Your task to perform on an android device: turn off picture-in-picture Image 0: 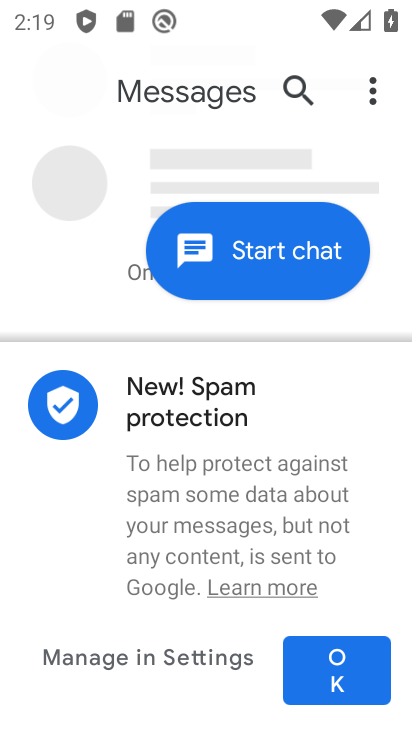
Step 0: press home button
Your task to perform on an android device: turn off picture-in-picture Image 1: 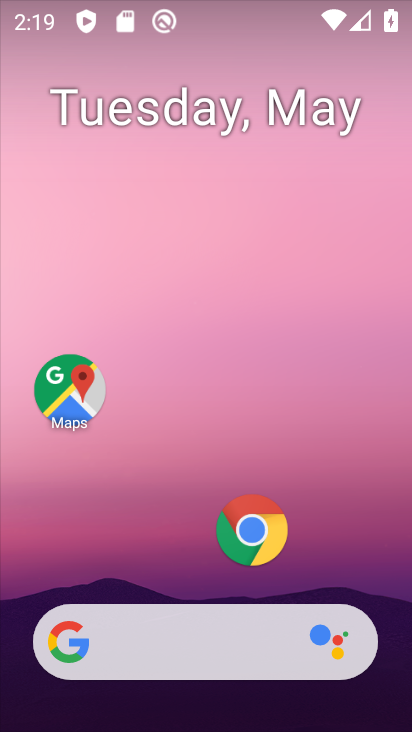
Step 1: drag from (203, 574) to (233, 46)
Your task to perform on an android device: turn off picture-in-picture Image 2: 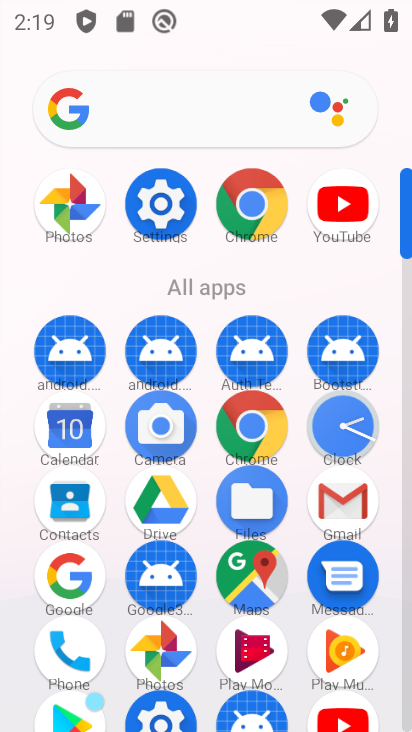
Step 2: click (257, 428)
Your task to perform on an android device: turn off picture-in-picture Image 3: 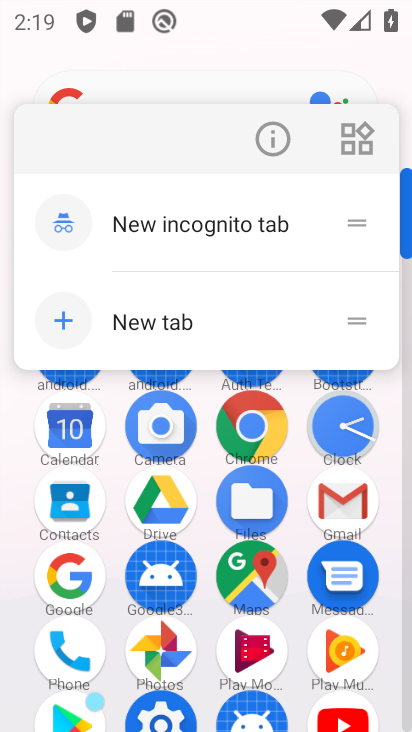
Step 3: click (273, 141)
Your task to perform on an android device: turn off picture-in-picture Image 4: 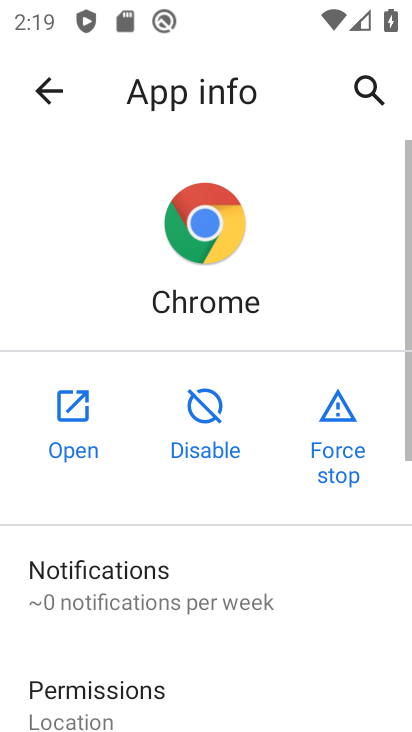
Step 4: drag from (152, 608) to (214, 123)
Your task to perform on an android device: turn off picture-in-picture Image 5: 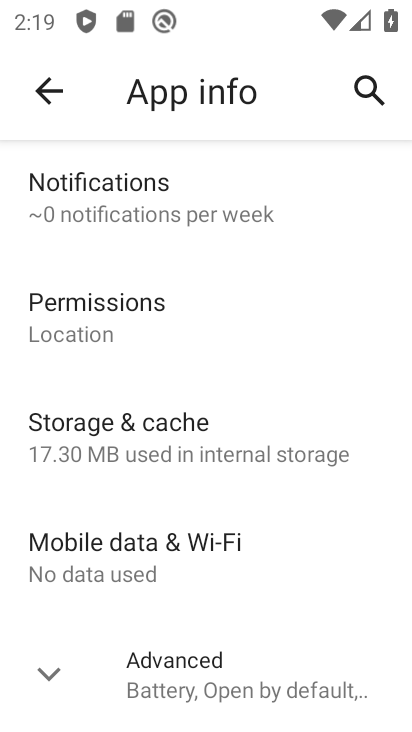
Step 5: click (47, 668)
Your task to perform on an android device: turn off picture-in-picture Image 6: 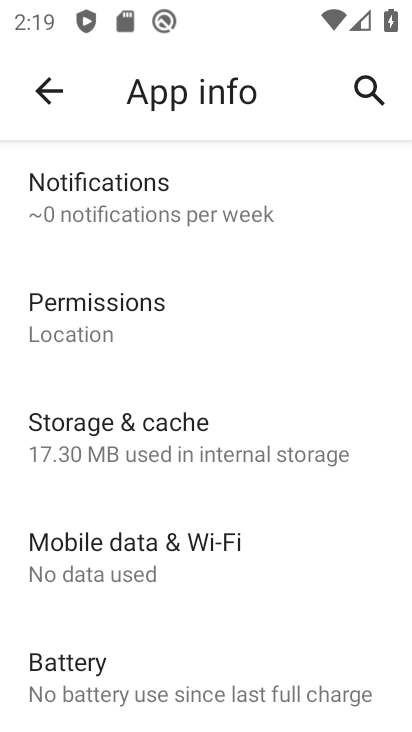
Step 6: drag from (187, 650) to (204, 490)
Your task to perform on an android device: turn off picture-in-picture Image 7: 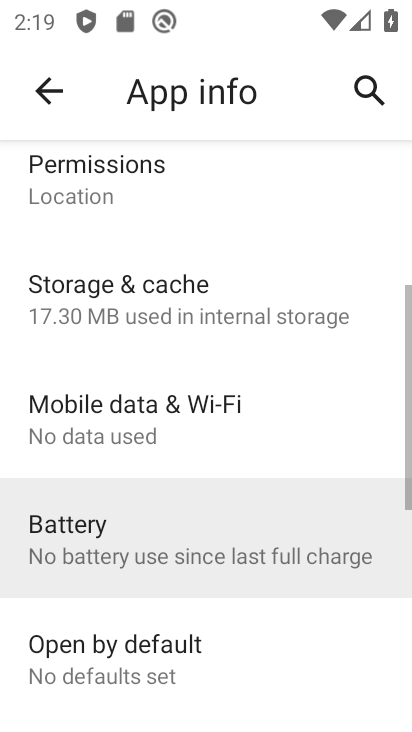
Step 7: drag from (220, 257) to (239, 144)
Your task to perform on an android device: turn off picture-in-picture Image 8: 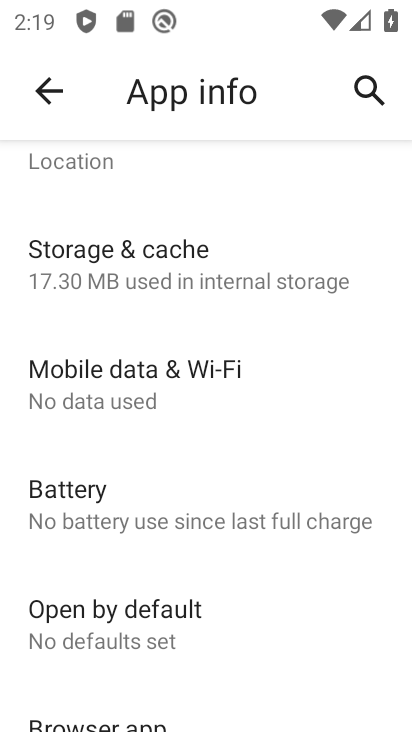
Step 8: drag from (221, 646) to (276, 169)
Your task to perform on an android device: turn off picture-in-picture Image 9: 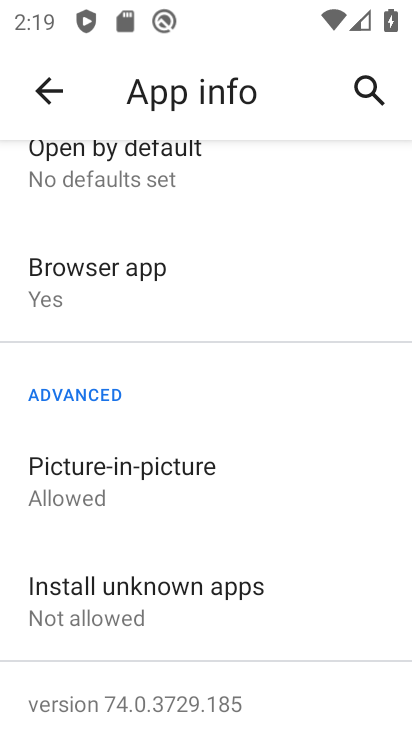
Step 9: click (158, 493)
Your task to perform on an android device: turn off picture-in-picture Image 10: 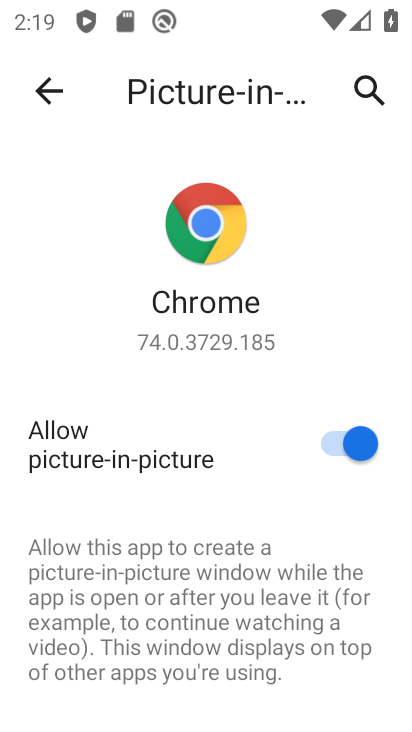
Step 10: click (331, 438)
Your task to perform on an android device: turn off picture-in-picture Image 11: 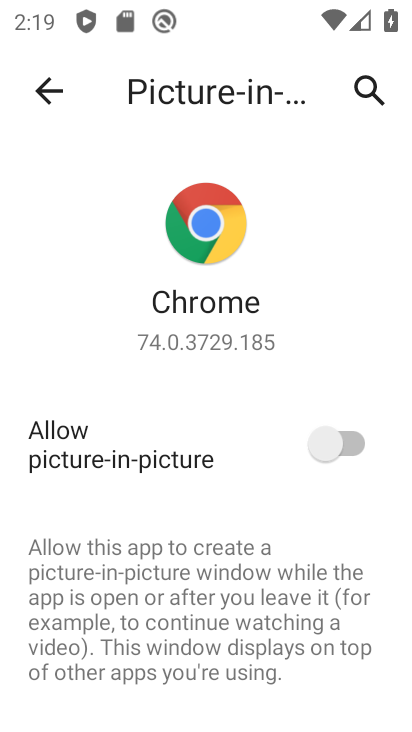
Step 11: task complete